Your task to perform on an android device: open a new tab in the chrome app Image 0: 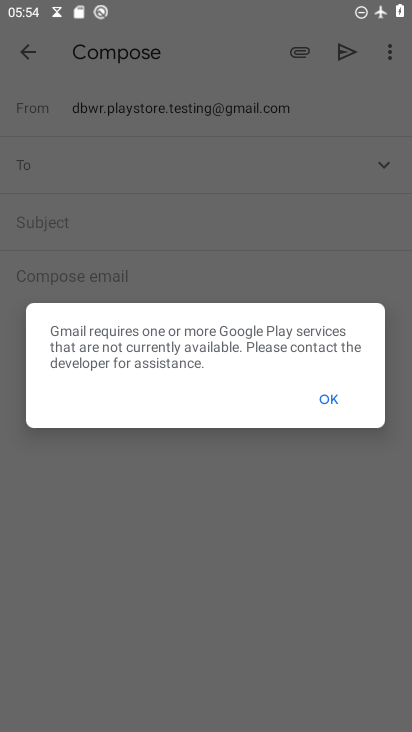
Step 0: press home button
Your task to perform on an android device: open a new tab in the chrome app Image 1: 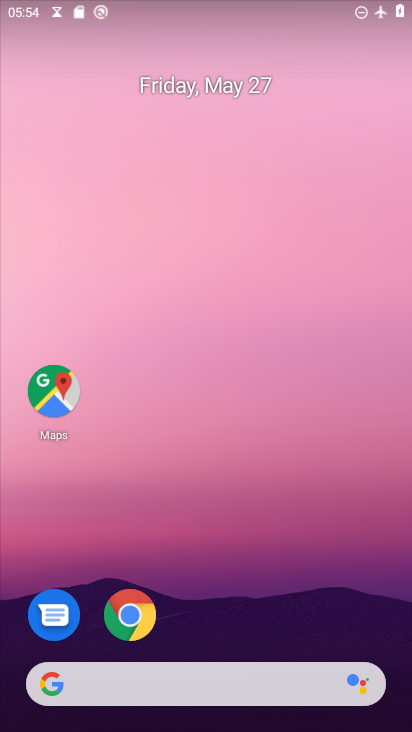
Step 1: click (133, 624)
Your task to perform on an android device: open a new tab in the chrome app Image 2: 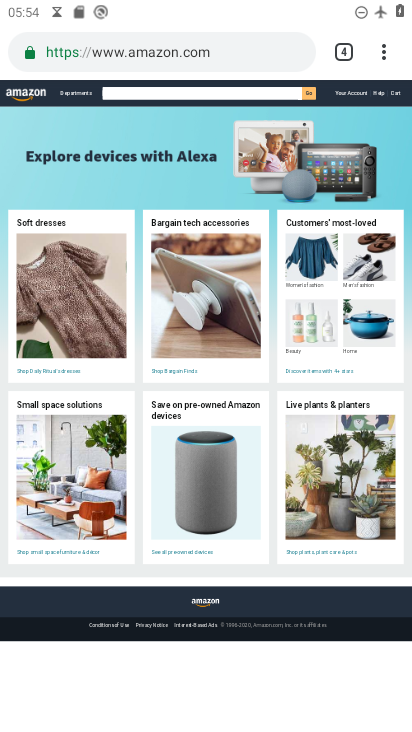
Step 2: click (385, 53)
Your task to perform on an android device: open a new tab in the chrome app Image 3: 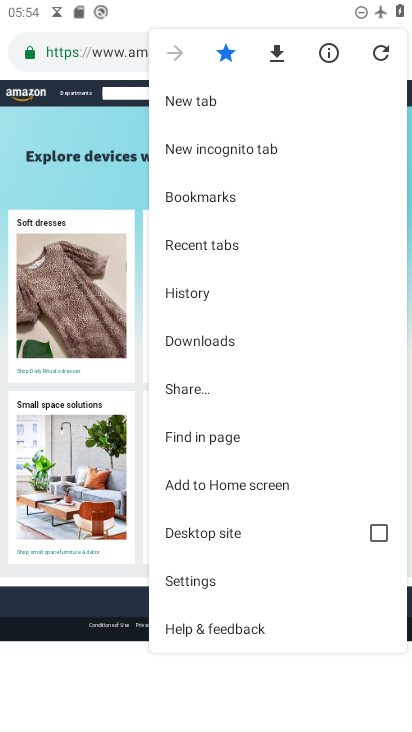
Step 3: click (202, 100)
Your task to perform on an android device: open a new tab in the chrome app Image 4: 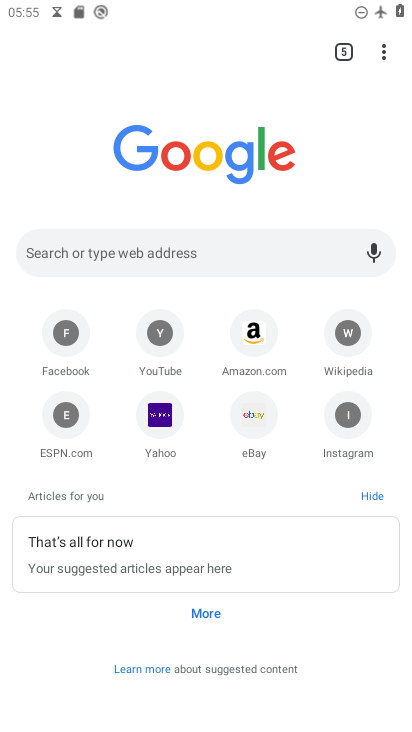
Step 4: task complete